Your task to perform on an android device: Find the nearest electronics store that's open Image 0: 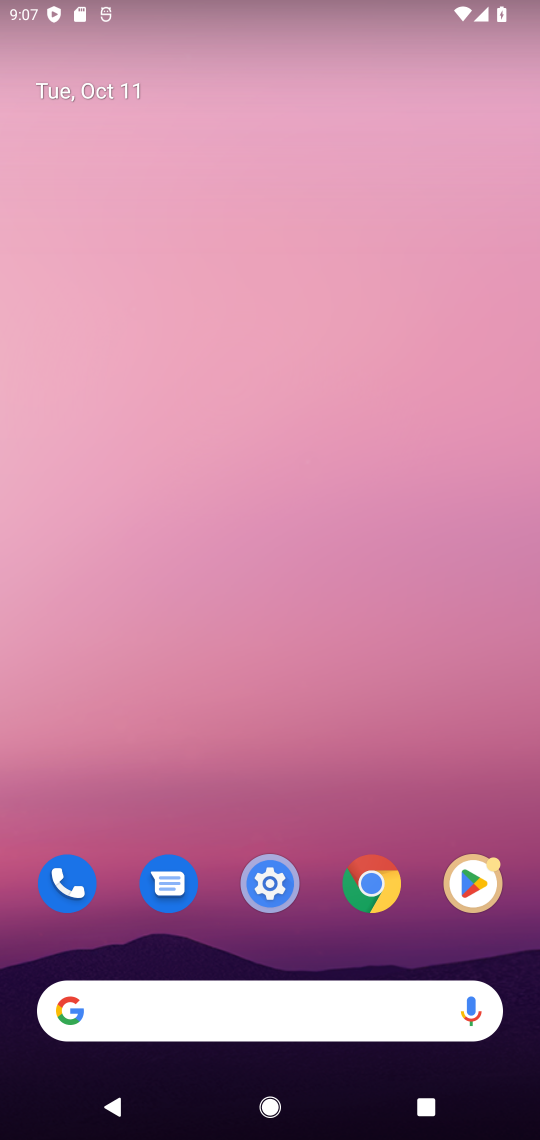
Step 0: click (70, 1010)
Your task to perform on an android device: Find the nearest electronics store that's open Image 1: 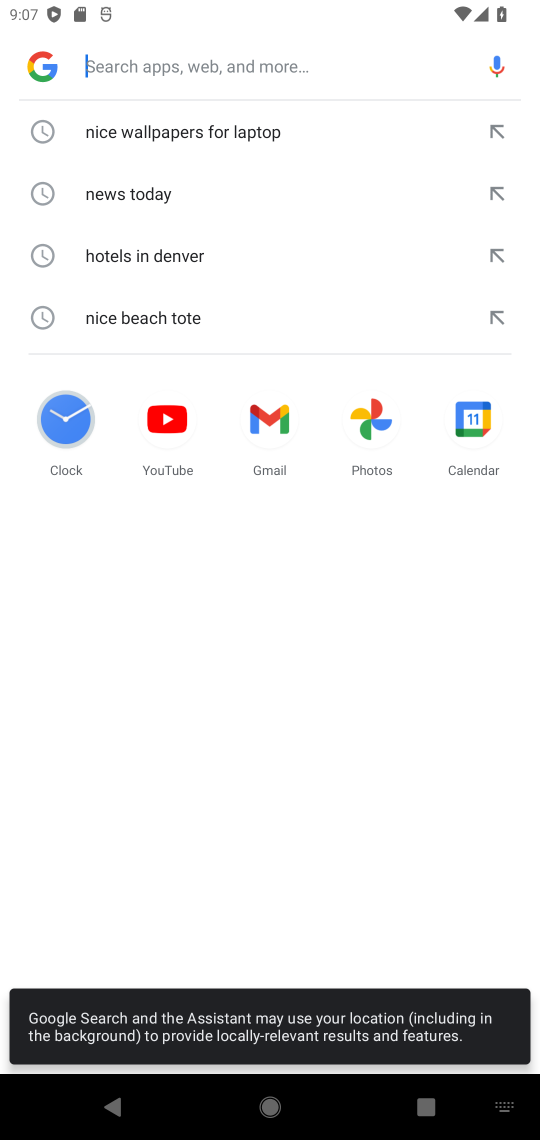
Step 1: click (236, 57)
Your task to perform on an android device: Find the nearest electronics store that's open Image 2: 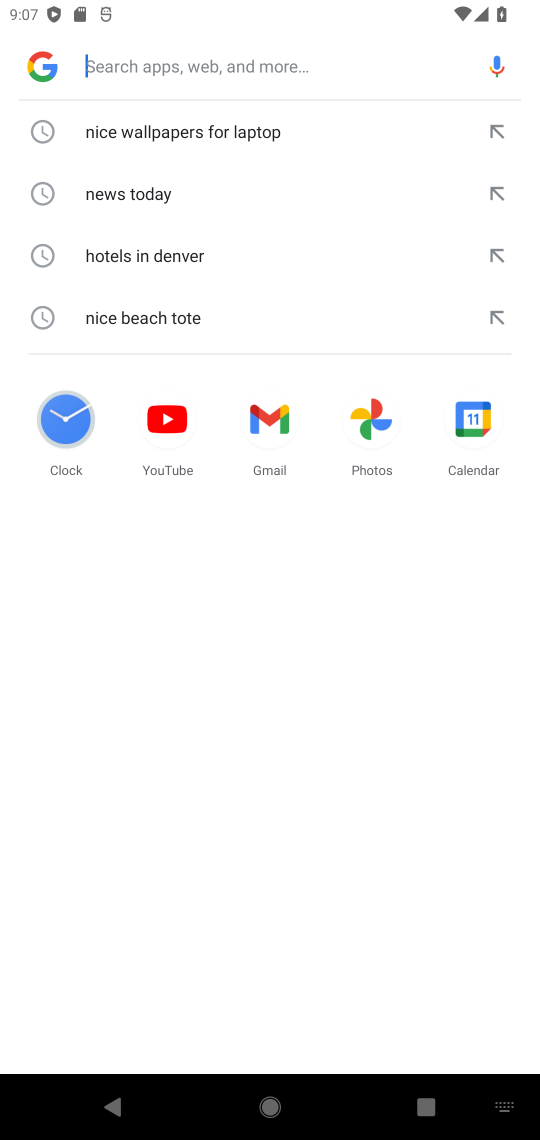
Step 2: type "Find the nearest electronics store that's open"
Your task to perform on an android device: Find the nearest electronics store that's open Image 3: 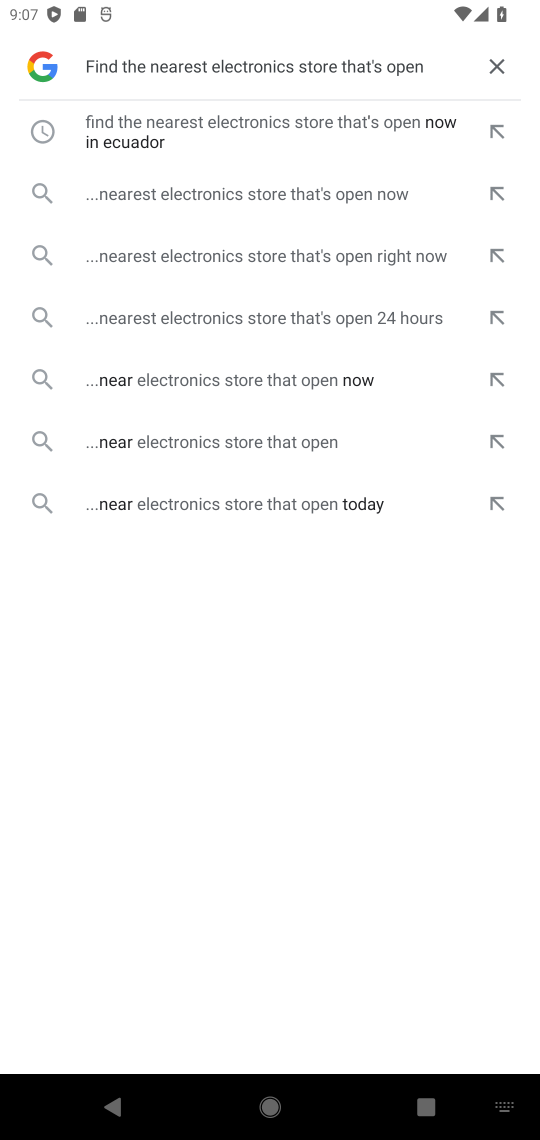
Step 3: click (273, 197)
Your task to perform on an android device: Find the nearest electronics store that's open Image 4: 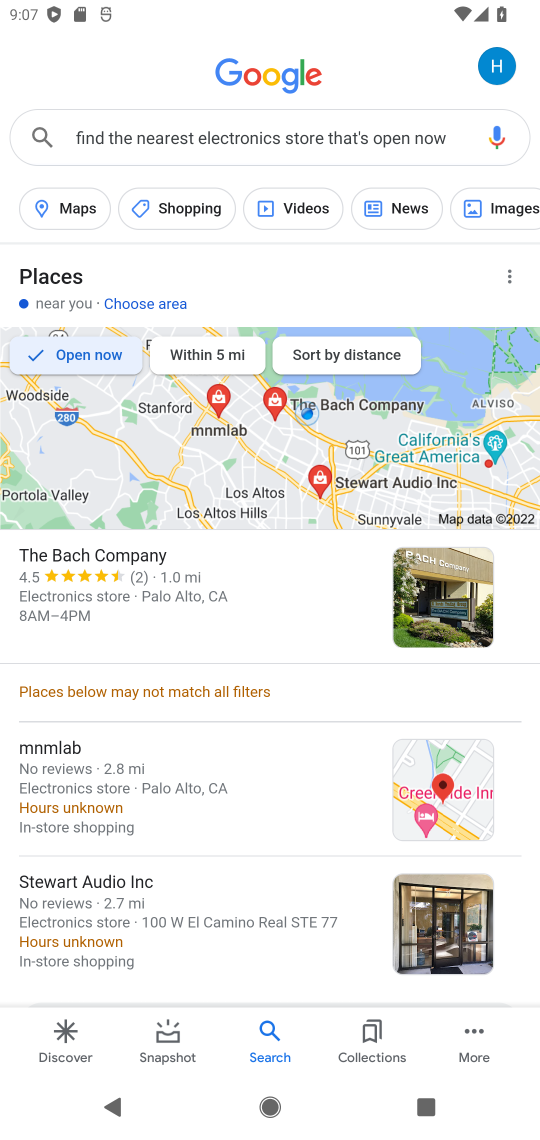
Step 4: task complete